Your task to perform on an android device: Open the Play Movies app and select the watchlist tab. Image 0: 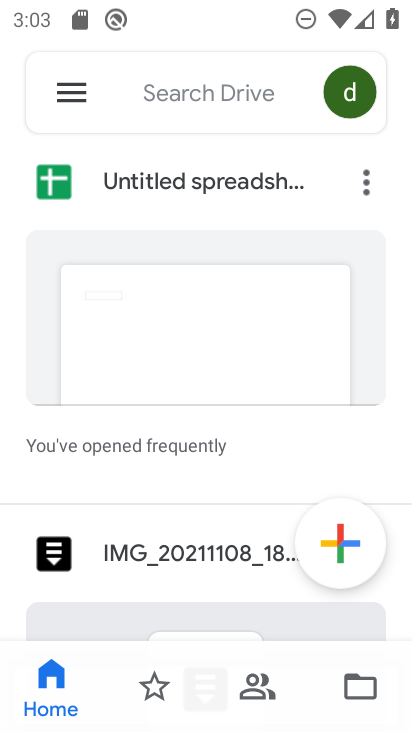
Step 0: press home button
Your task to perform on an android device: Open the Play Movies app and select the watchlist tab. Image 1: 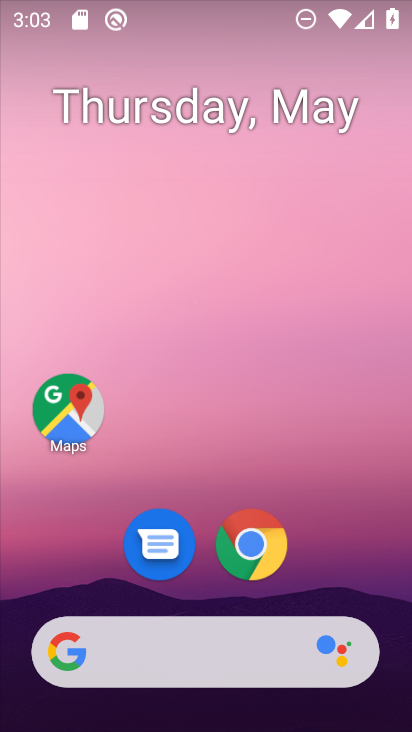
Step 1: drag from (179, 605) to (286, 41)
Your task to perform on an android device: Open the Play Movies app and select the watchlist tab. Image 2: 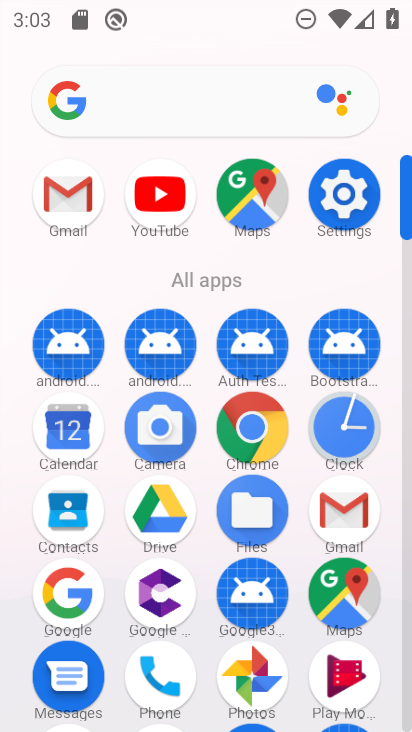
Step 2: click (344, 686)
Your task to perform on an android device: Open the Play Movies app and select the watchlist tab. Image 3: 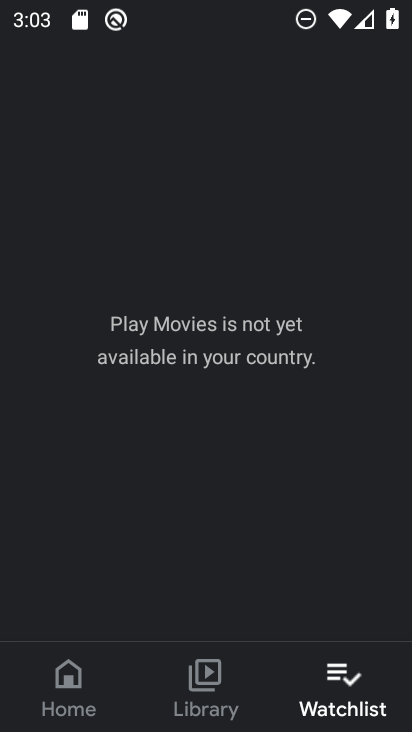
Step 3: click (326, 681)
Your task to perform on an android device: Open the Play Movies app and select the watchlist tab. Image 4: 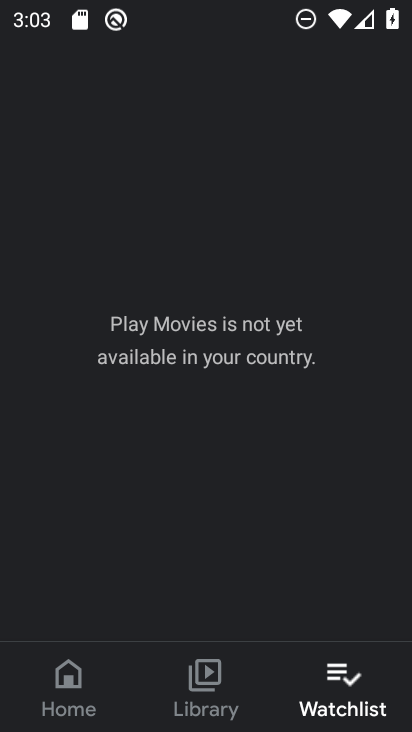
Step 4: task complete